Your task to perform on an android device: Go to settings Image 0: 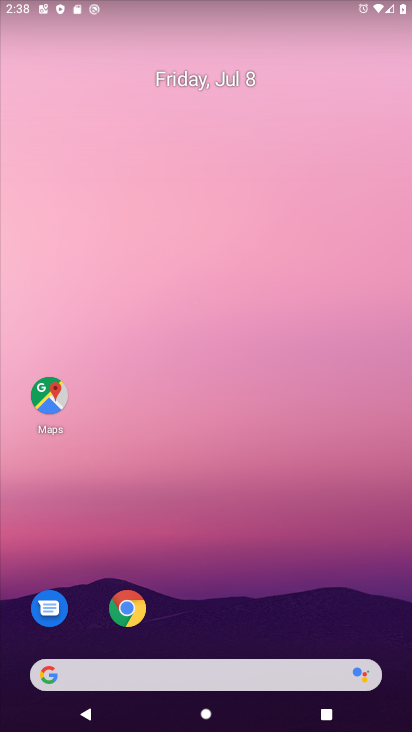
Step 0: drag from (180, 8) to (188, 498)
Your task to perform on an android device: Go to settings Image 1: 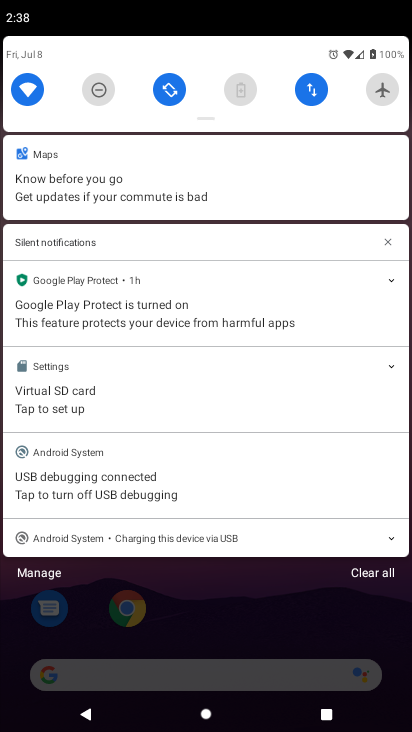
Step 1: drag from (203, 51) to (219, 639)
Your task to perform on an android device: Go to settings Image 2: 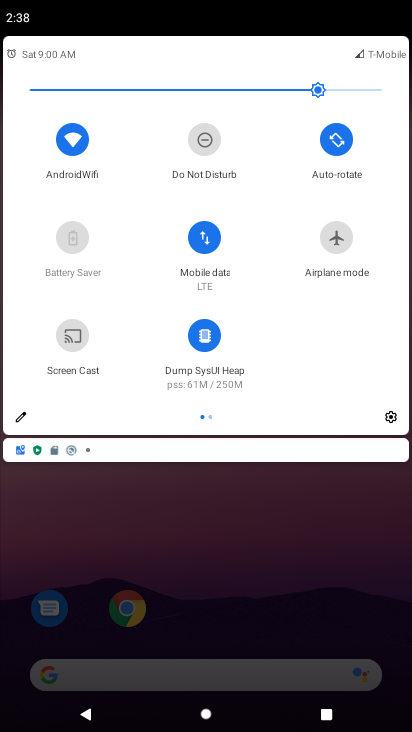
Step 2: click (390, 422)
Your task to perform on an android device: Go to settings Image 3: 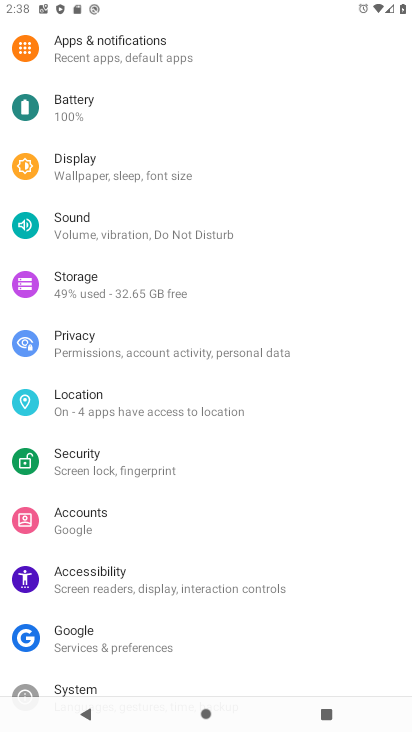
Step 3: task complete